Your task to perform on an android device: manage bookmarks in the chrome app Image 0: 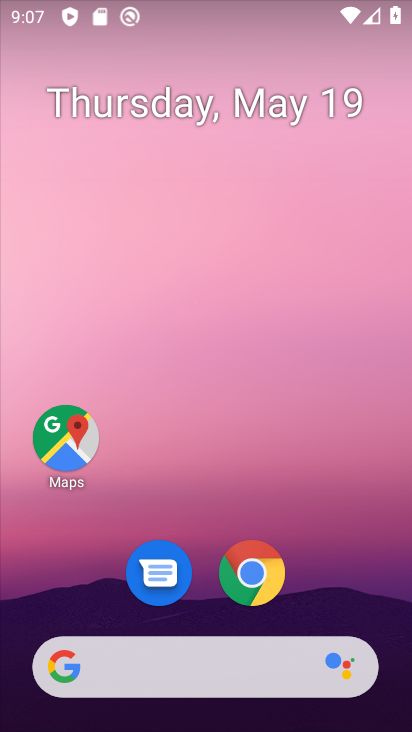
Step 0: click (243, 566)
Your task to perform on an android device: manage bookmarks in the chrome app Image 1: 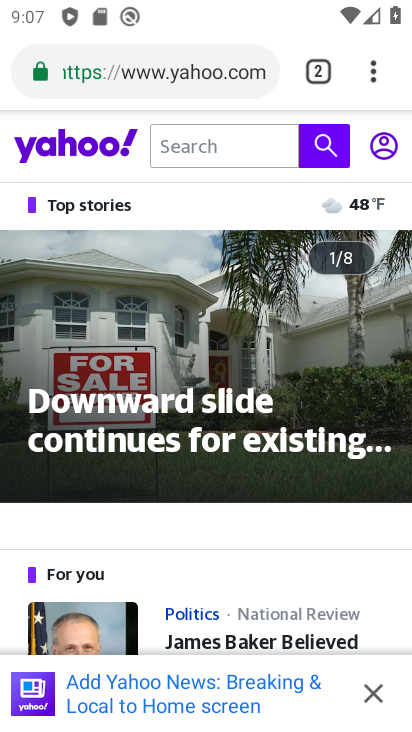
Step 1: task complete